Your task to perform on an android device: search for starred emails in the gmail app Image 0: 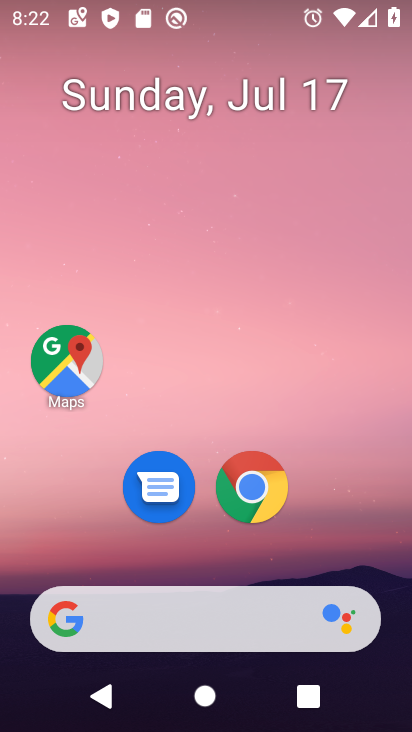
Step 0: drag from (122, 569) to (311, 19)
Your task to perform on an android device: search for starred emails in the gmail app Image 1: 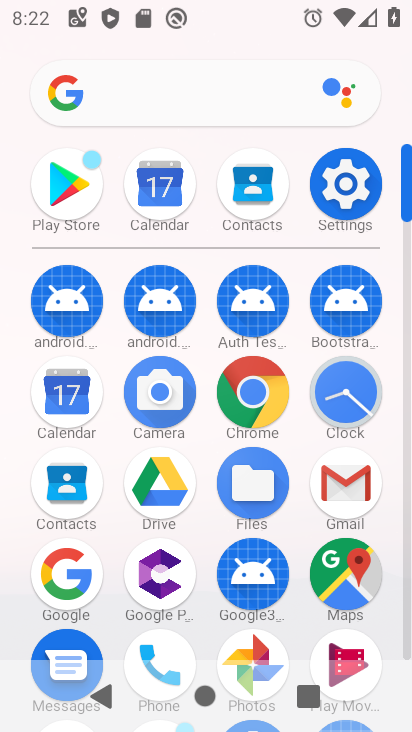
Step 1: click (339, 489)
Your task to perform on an android device: search for starred emails in the gmail app Image 2: 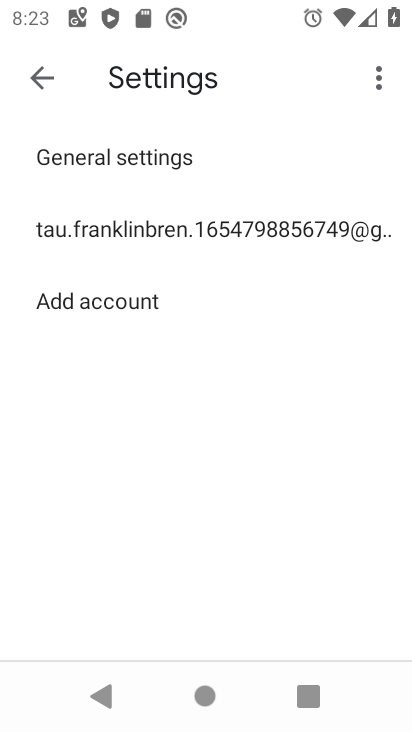
Step 2: click (46, 64)
Your task to perform on an android device: search for starred emails in the gmail app Image 3: 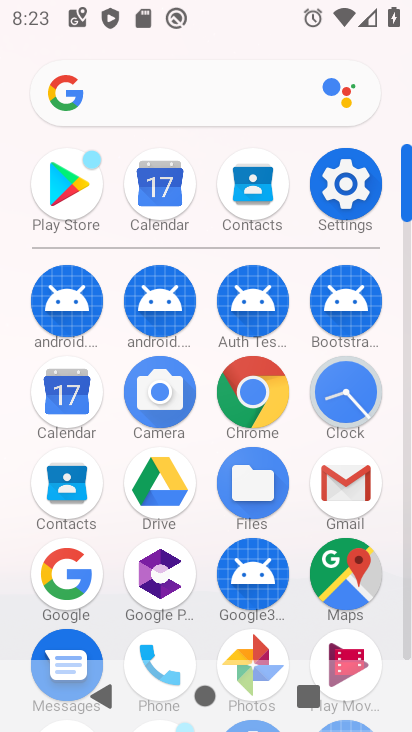
Step 3: click (335, 497)
Your task to perform on an android device: search for starred emails in the gmail app Image 4: 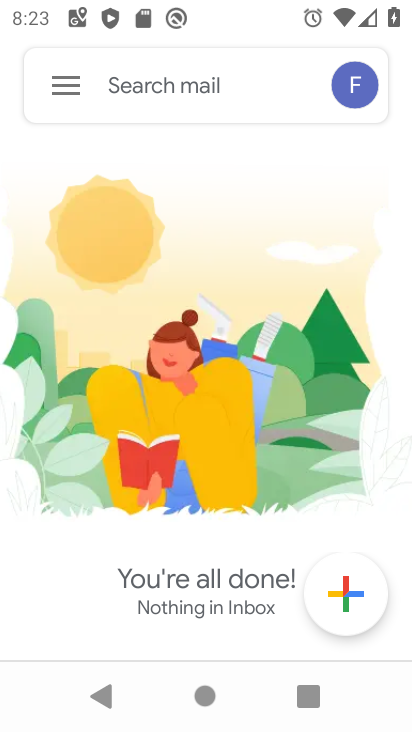
Step 4: click (65, 75)
Your task to perform on an android device: search for starred emails in the gmail app Image 5: 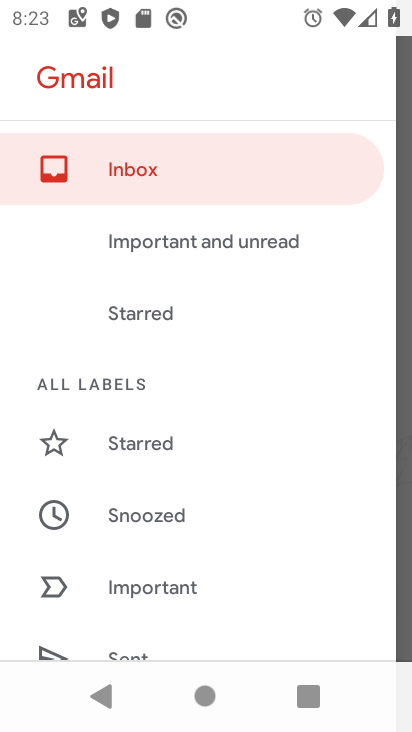
Step 5: click (153, 441)
Your task to perform on an android device: search for starred emails in the gmail app Image 6: 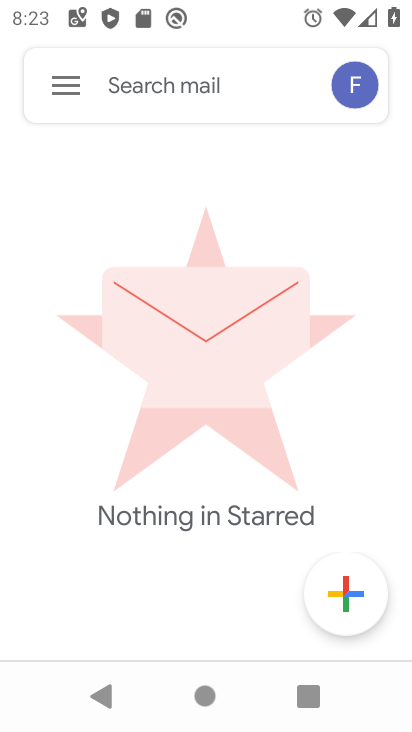
Step 6: task complete